Your task to perform on an android device: Open display settings Image 0: 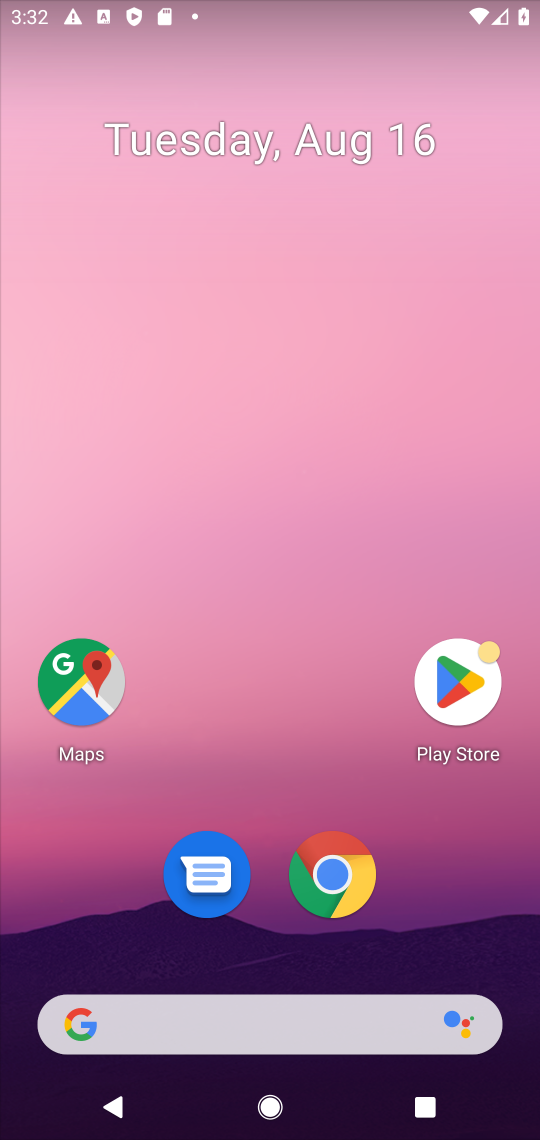
Step 0: drag from (261, 986) to (254, 271)
Your task to perform on an android device: Open display settings Image 1: 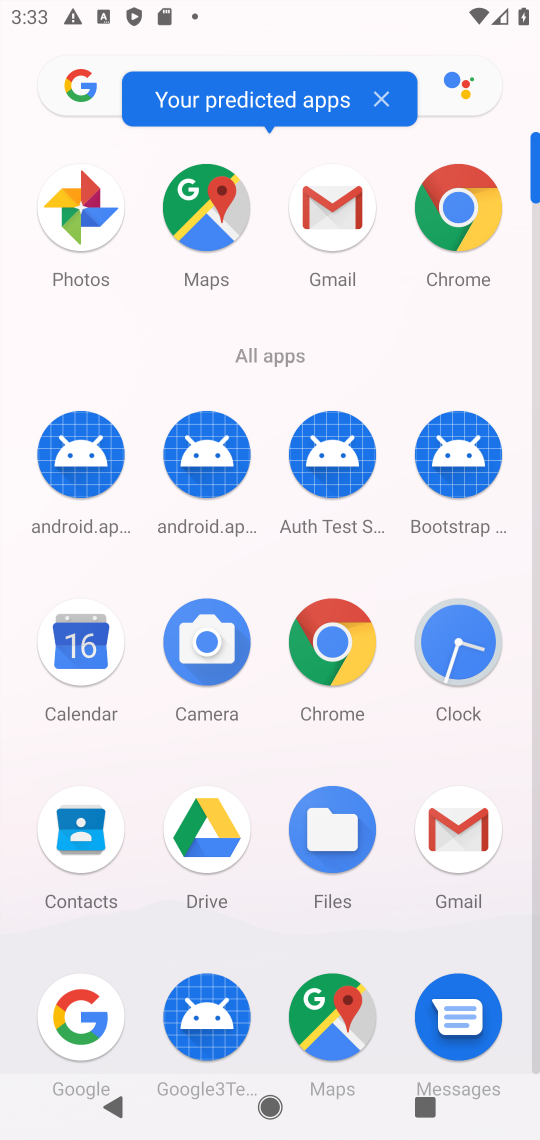
Step 1: drag from (221, 1005) to (207, 445)
Your task to perform on an android device: Open display settings Image 2: 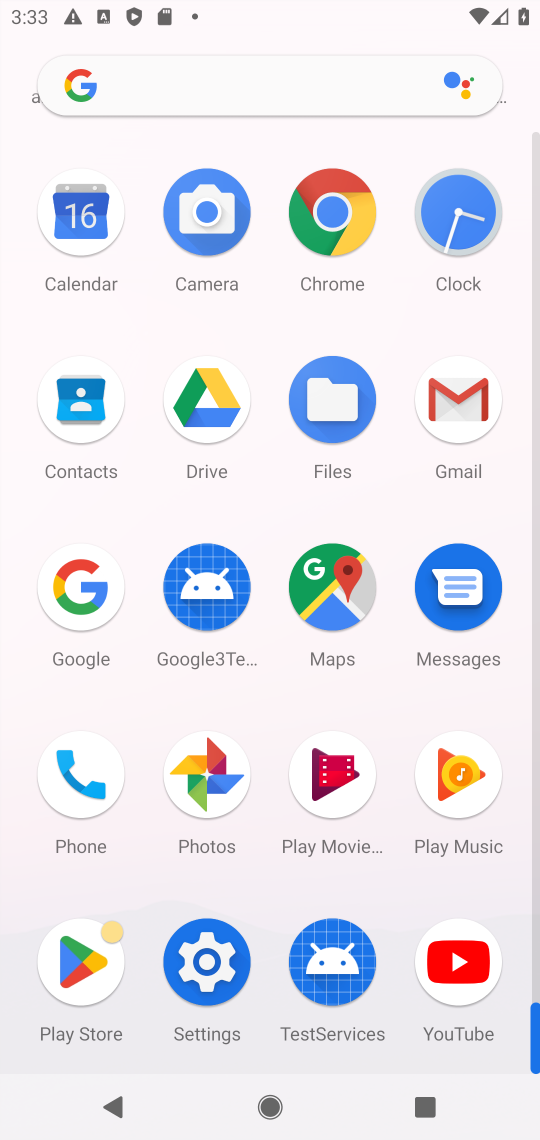
Step 2: click (198, 983)
Your task to perform on an android device: Open display settings Image 3: 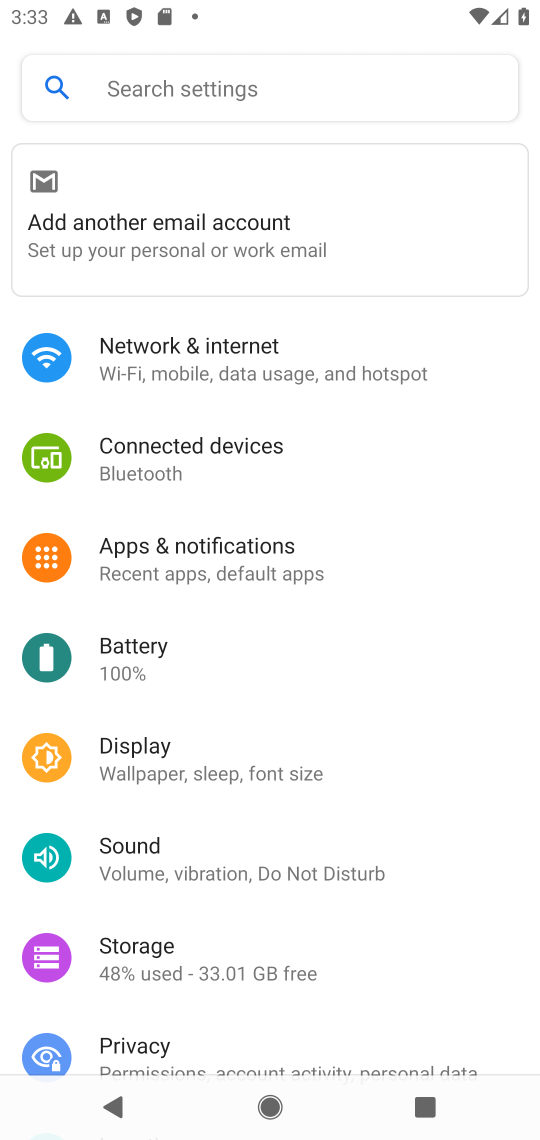
Step 3: click (183, 767)
Your task to perform on an android device: Open display settings Image 4: 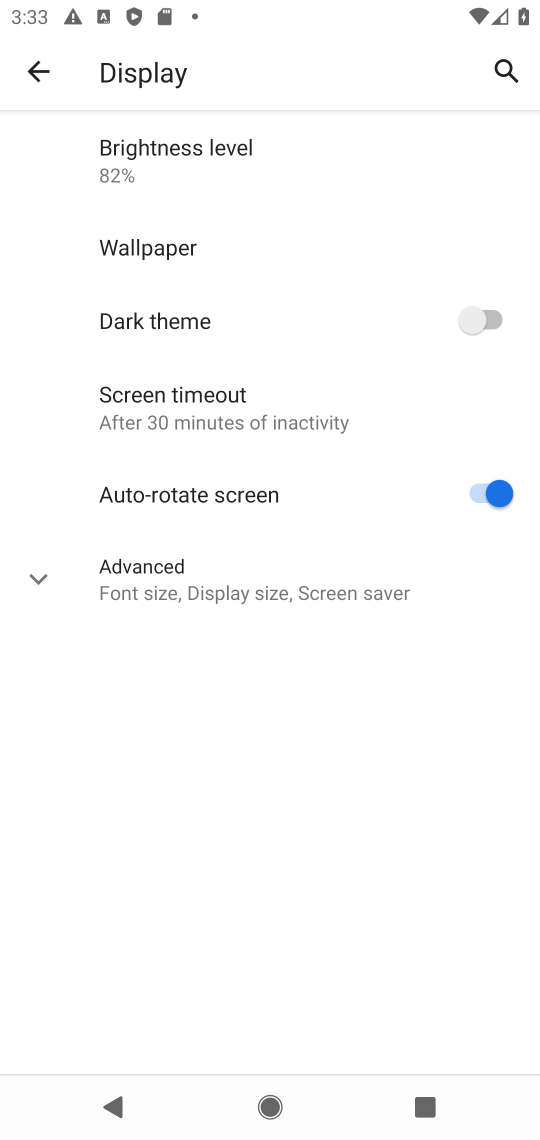
Step 4: task complete